Your task to perform on an android device: Search for Mexican restaurants on Maps Image 0: 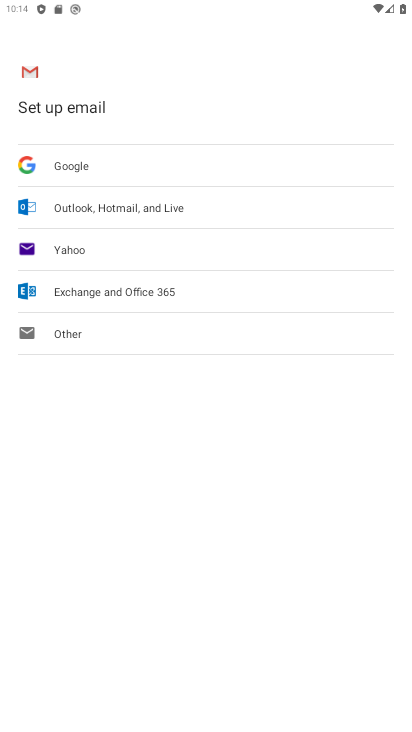
Step 0: press home button
Your task to perform on an android device: Search for Mexican restaurants on Maps Image 1: 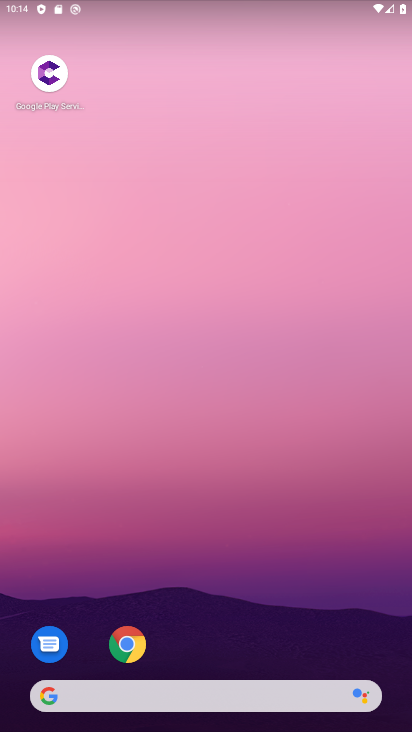
Step 1: drag from (249, 594) to (248, 153)
Your task to perform on an android device: Search for Mexican restaurants on Maps Image 2: 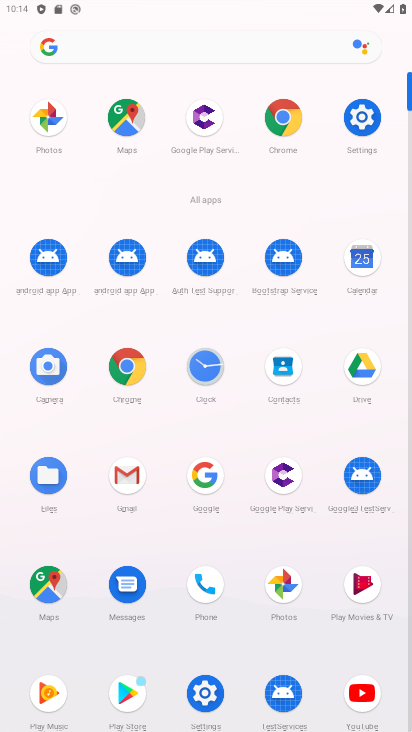
Step 2: click (128, 114)
Your task to perform on an android device: Search for Mexican restaurants on Maps Image 3: 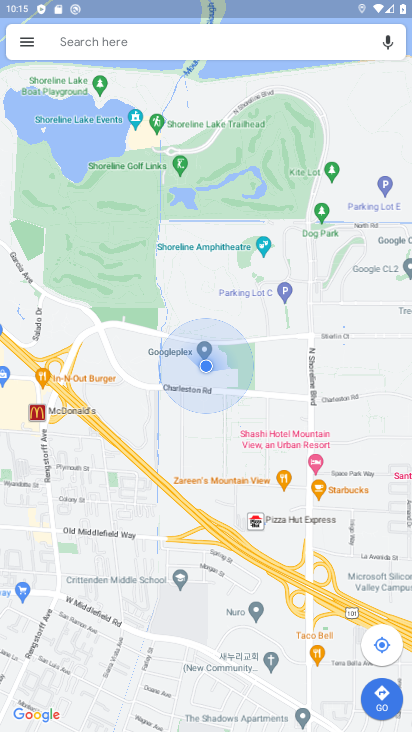
Step 3: click (21, 41)
Your task to perform on an android device: Search for Mexican restaurants on Maps Image 4: 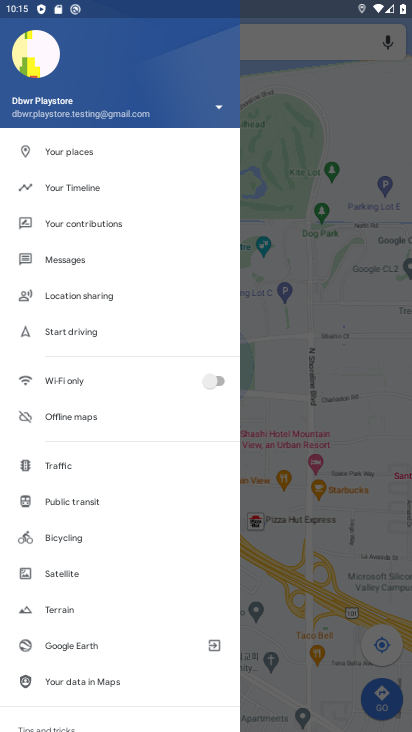
Step 4: click (282, 452)
Your task to perform on an android device: Search for Mexican restaurants on Maps Image 5: 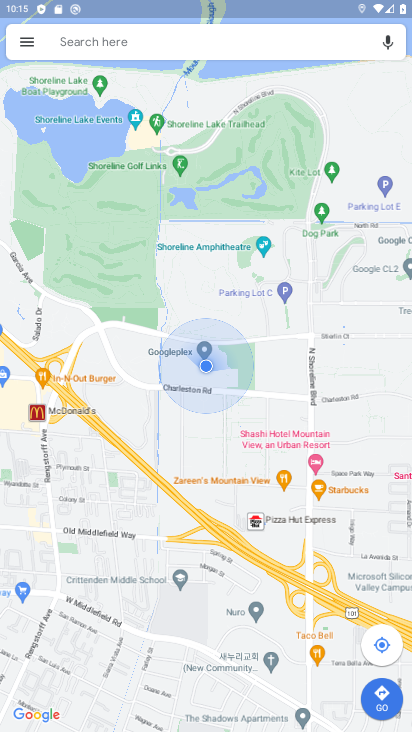
Step 5: click (151, 33)
Your task to perform on an android device: Search for Mexican restaurants on Maps Image 6: 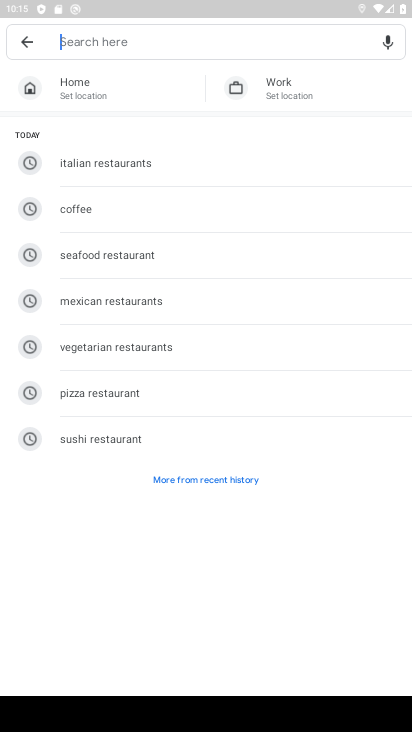
Step 6: click (115, 301)
Your task to perform on an android device: Search for Mexican restaurants on Maps Image 7: 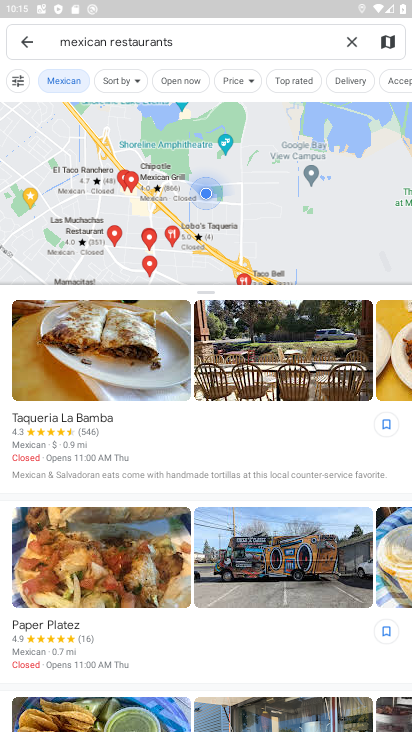
Step 7: task complete